Your task to perform on an android device: Do I have any events today? Image 0: 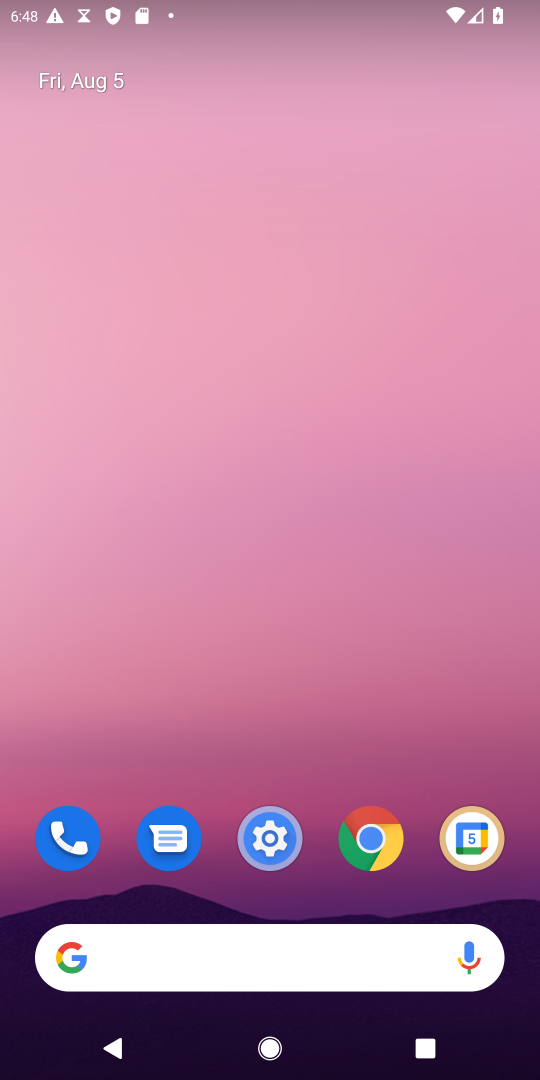
Step 0: press home button
Your task to perform on an android device: Do I have any events today? Image 1: 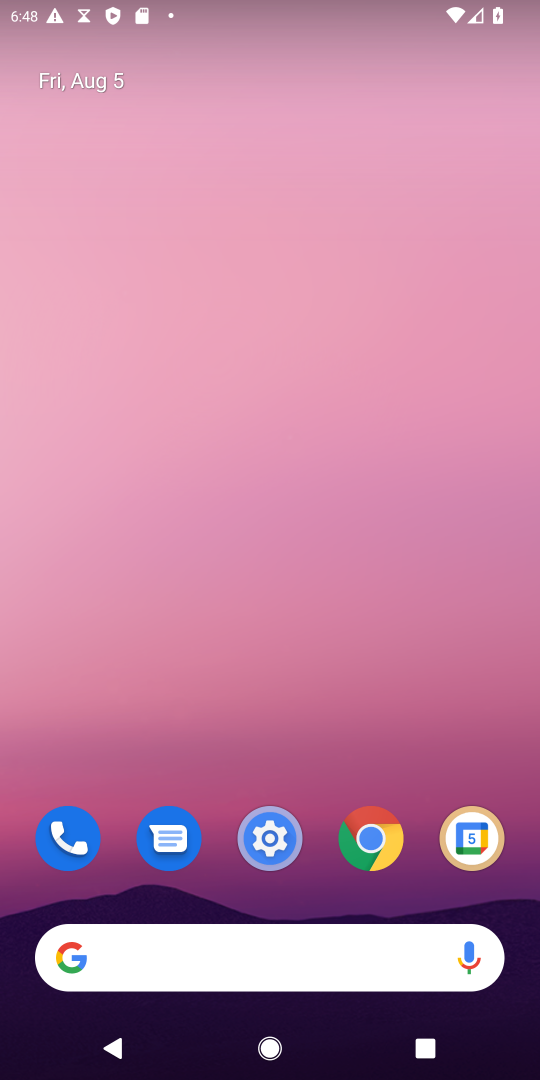
Step 1: drag from (294, 777) to (438, 0)
Your task to perform on an android device: Do I have any events today? Image 2: 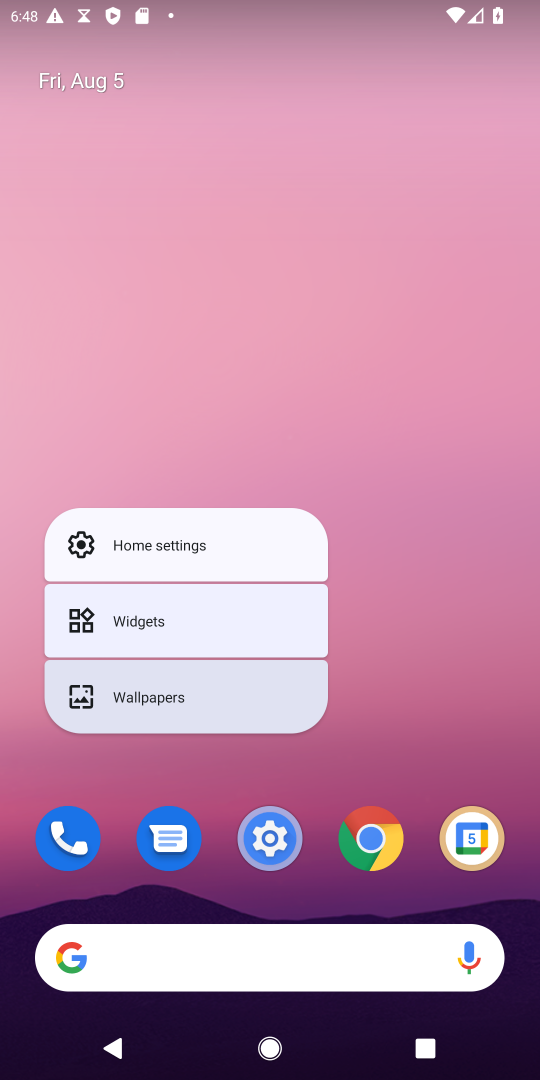
Step 2: drag from (462, 571) to (284, 8)
Your task to perform on an android device: Do I have any events today? Image 3: 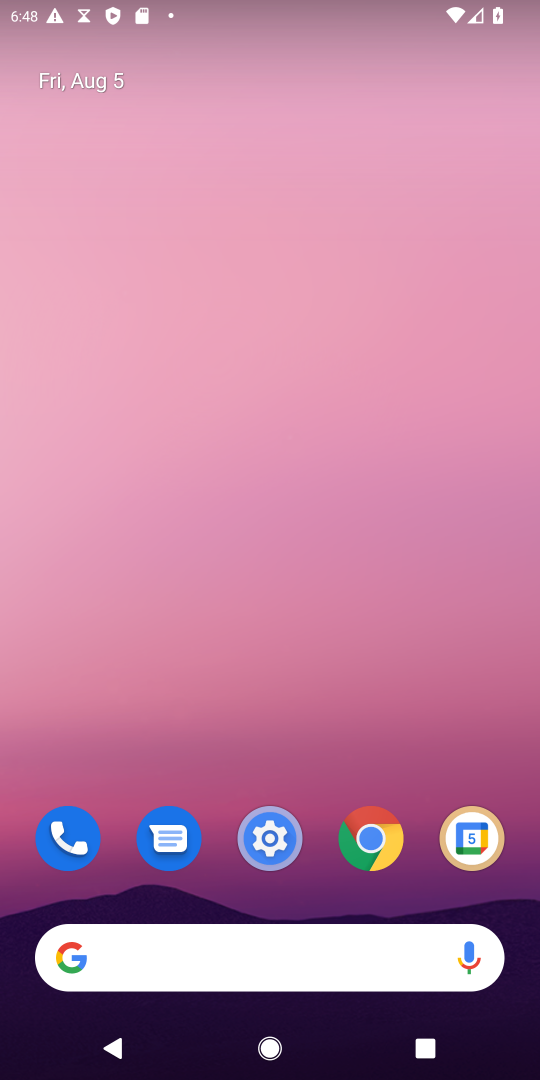
Step 3: drag from (351, 733) to (466, 59)
Your task to perform on an android device: Do I have any events today? Image 4: 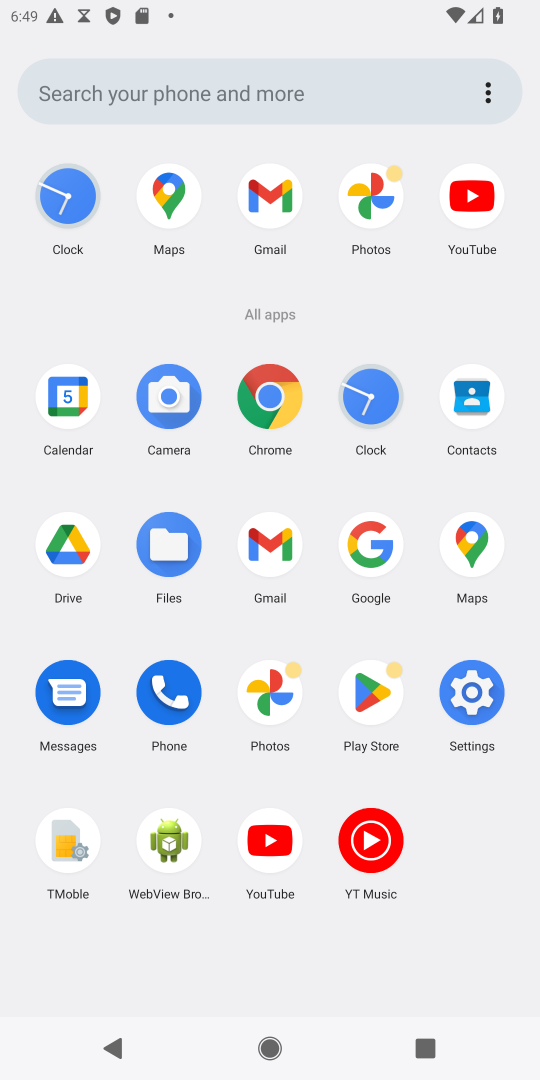
Step 4: click (71, 387)
Your task to perform on an android device: Do I have any events today? Image 5: 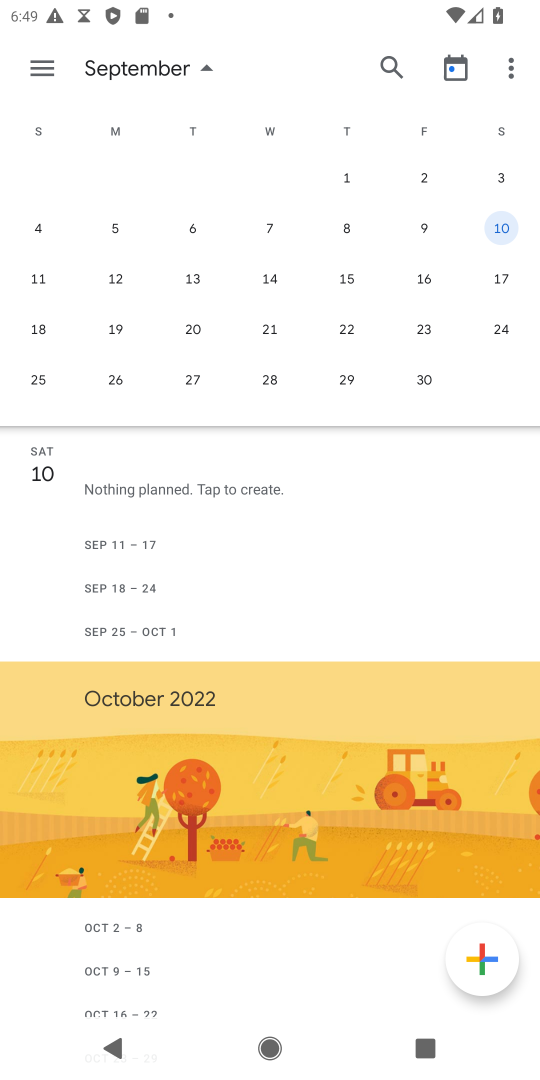
Step 5: click (433, 222)
Your task to perform on an android device: Do I have any events today? Image 6: 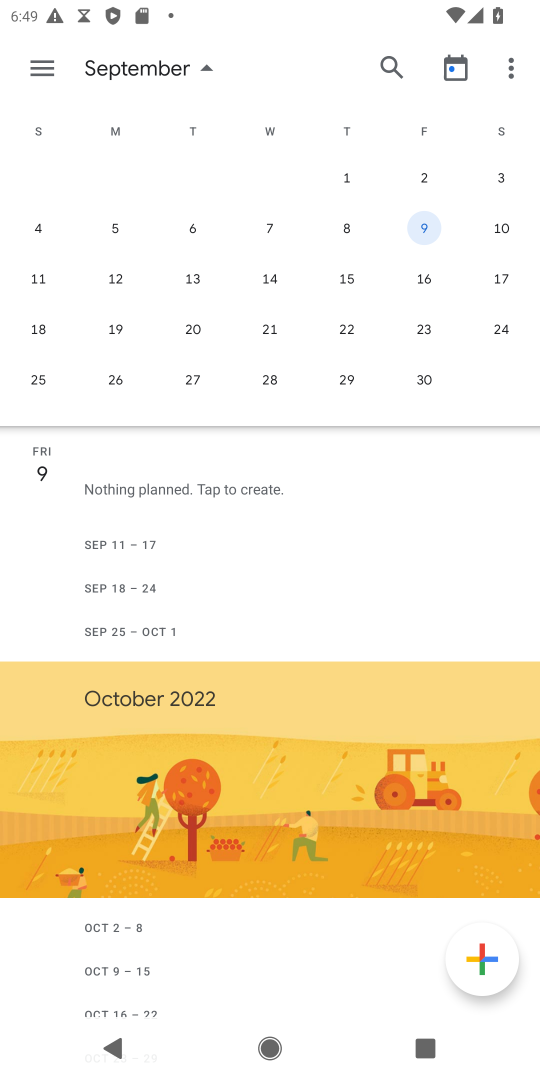
Step 6: click (421, 224)
Your task to perform on an android device: Do I have any events today? Image 7: 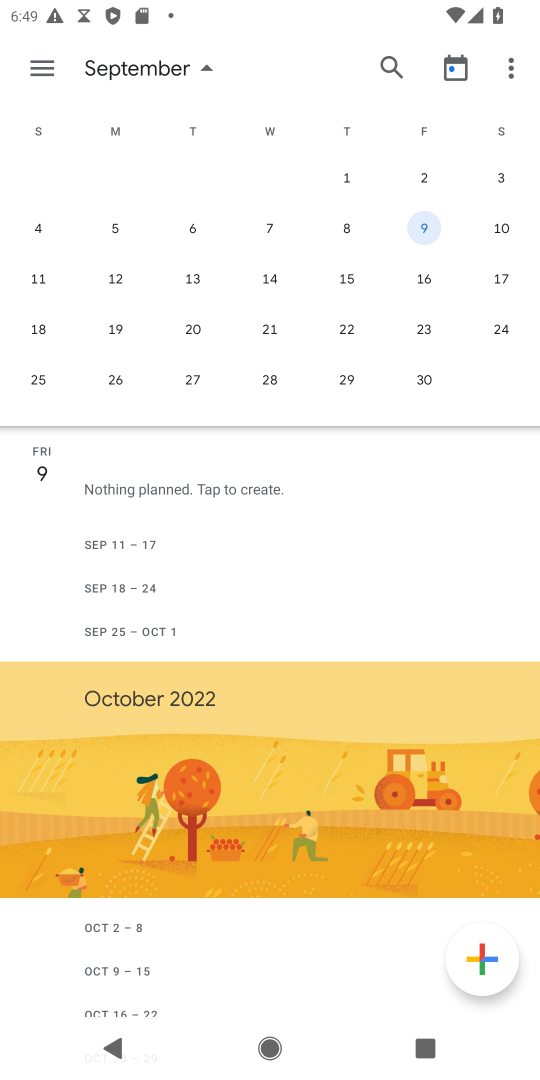
Step 7: task complete